Your task to perform on an android device: check data usage Image 0: 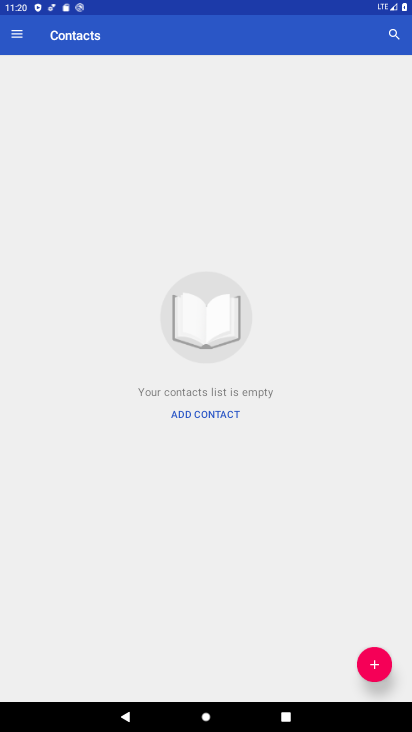
Step 0: press home button
Your task to perform on an android device: check data usage Image 1: 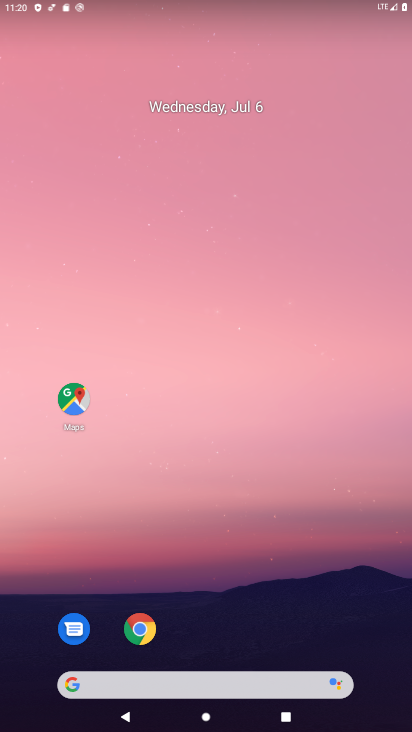
Step 1: drag from (217, 617) to (220, 153)
Your task to perform on an android device: check data usage Image 2: 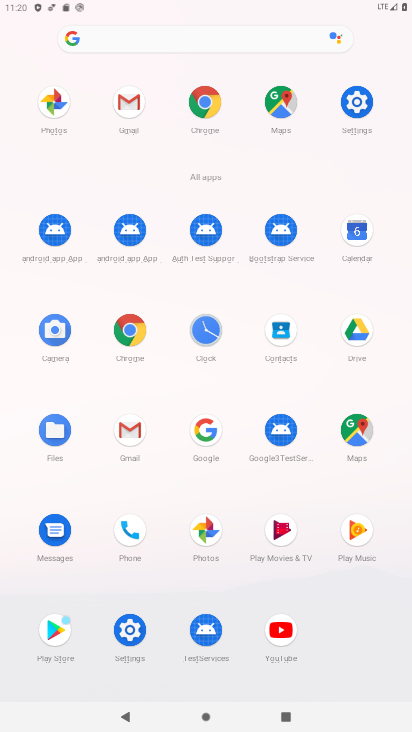
Step 2: click (357, 112)
Your task to perform on an android device: check data usage Image 3: 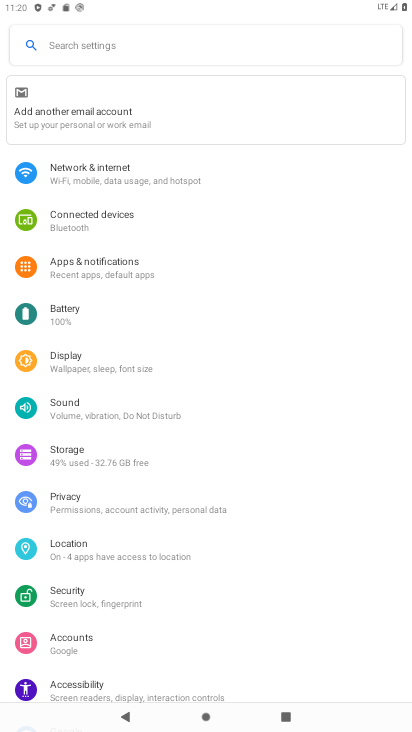
Step 3: click (165, 182)
Your task to perform on an android device: check data usage Image 4: 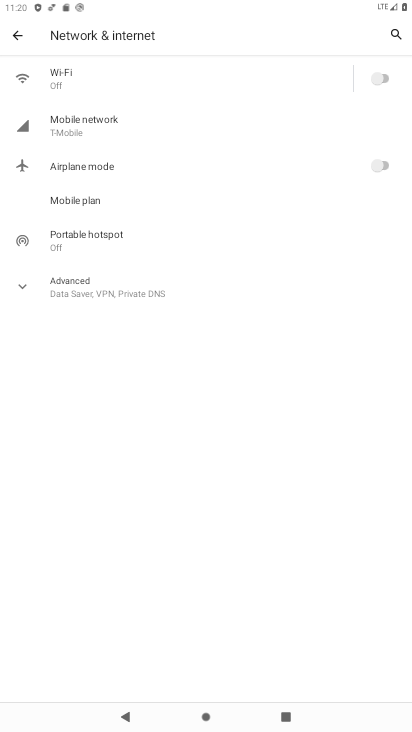
Step 4: click (105, 127)
Your task to perform on an android device: check data usage Image 5: 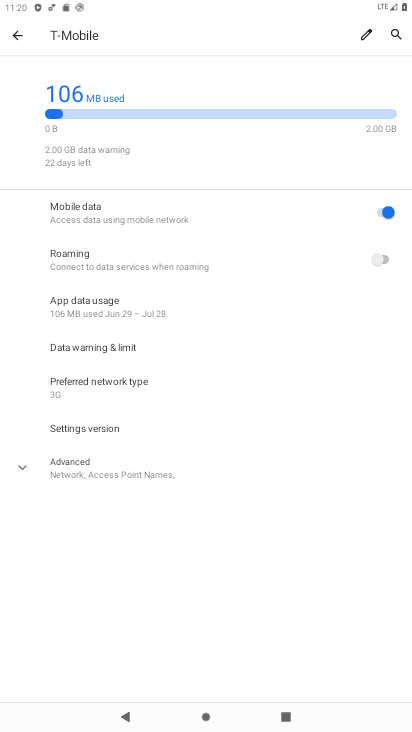
Step 5: click (139, 319)
Your task to perform on an android device: check data usage Image 6: 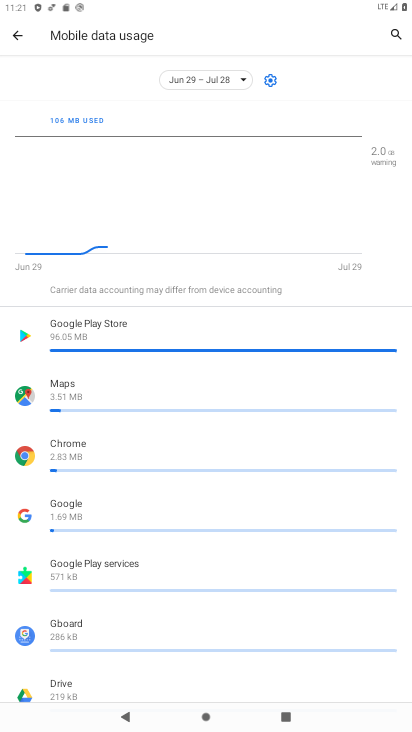
Step 6: task complete